Your task to perform on an android device: open a new tab in the chrome app Image 0: 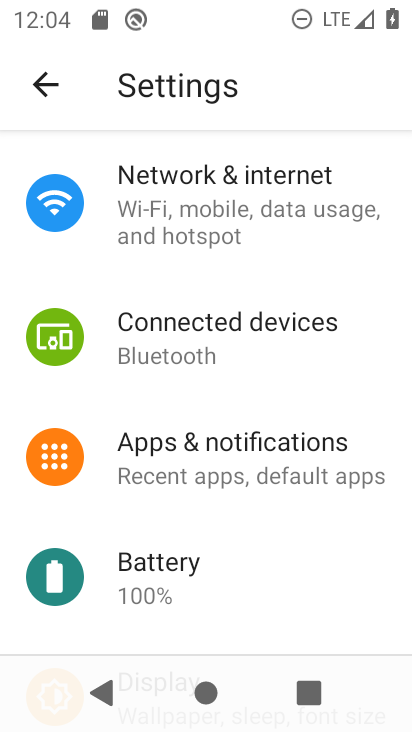
Step 0: press back button
Your task to perform on an android device: open a new tab in the chrome app Image 1: 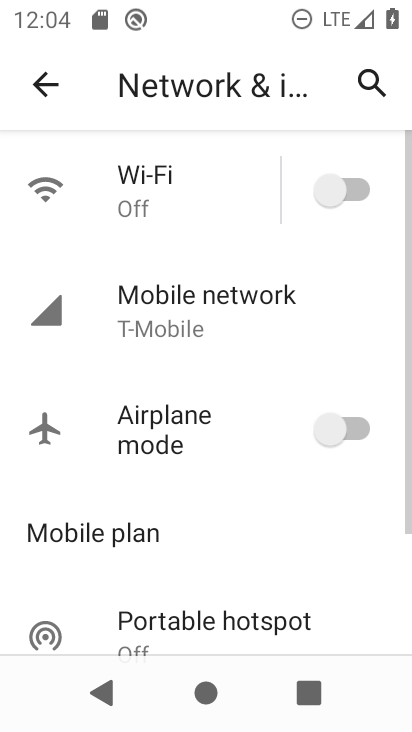
Step 1: press back button
Your task to perform on an android device: open a new tab in the chrome app Image 2: 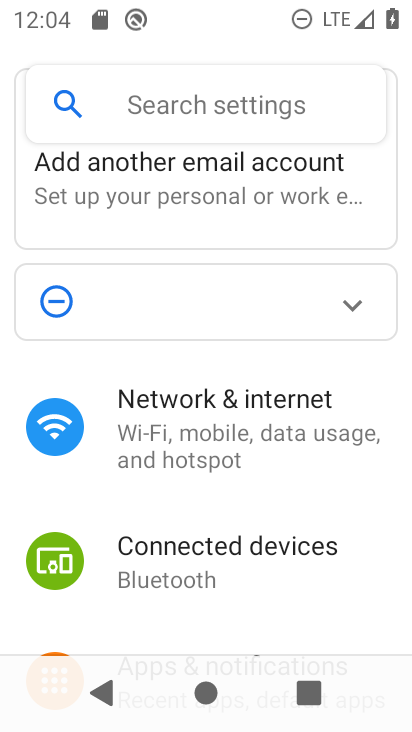
Step 2: press home button
Your task to perform on an android device: open a new tab in the chrome app Image 3: 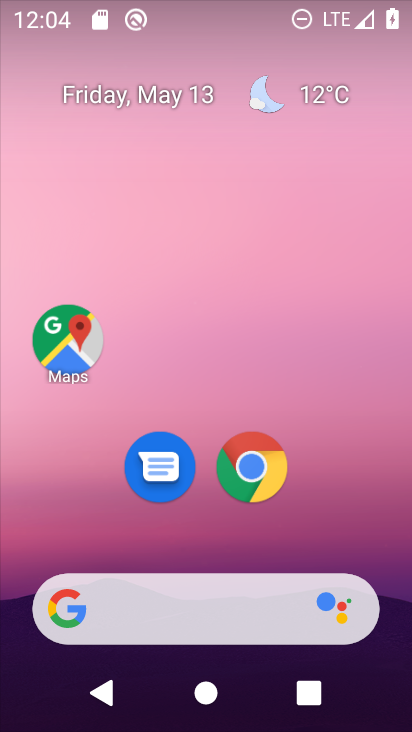
Step 3: drag from (363, 506) to (290, 47)
Your task to perform on an android device: open a new tab in the chrome app Image 4: 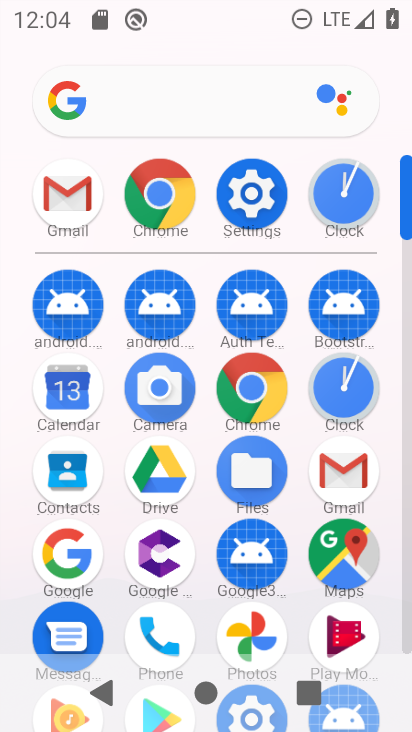
Step 4: click (252, 382)
Your task to perform on an android device: open a new tab in the chrome app Image 5: 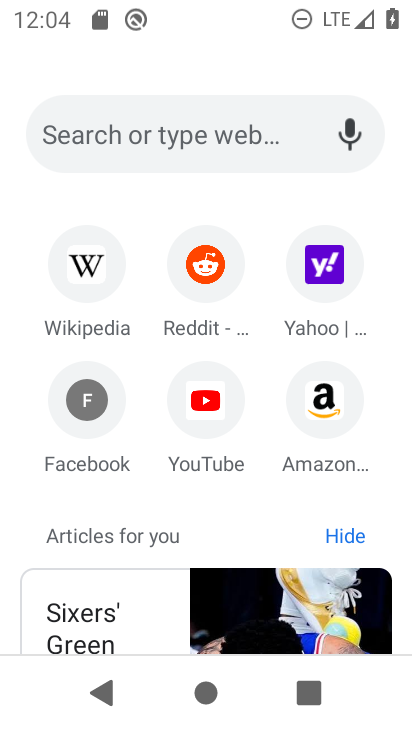
Step 5: task complete